Your task to perform on an android device: find snoozed emails in the gmail app Image 0: 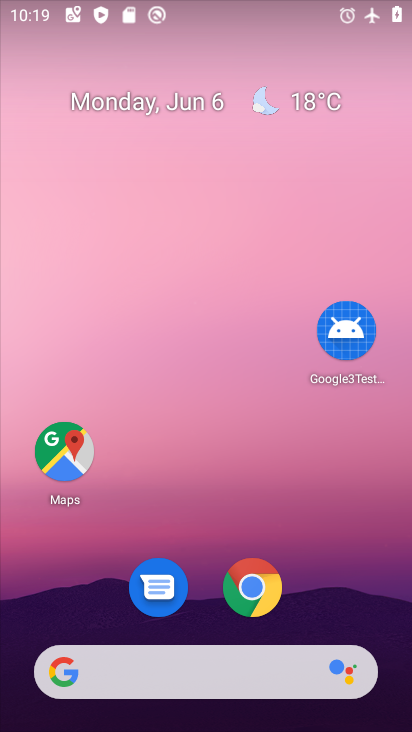
Step 0: drag from (346, 595) to (212, 125)
Your task to perform on an android device: find snoozed emails in the gmail app Image 1: 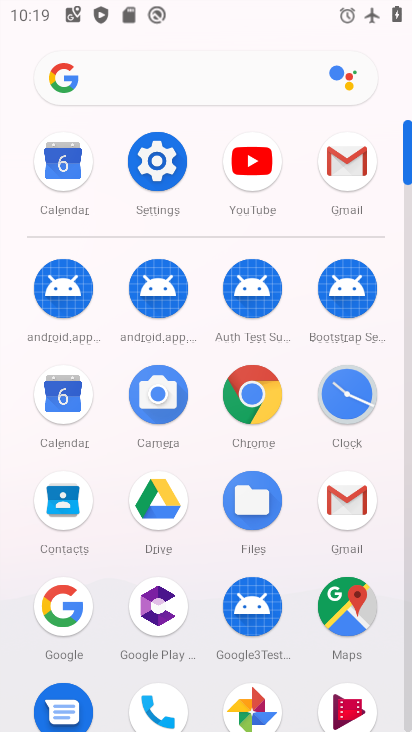
Step 1: click (342, 171)
Your task to perform on an android device: find snoozed emails in the gmail app Image 2: 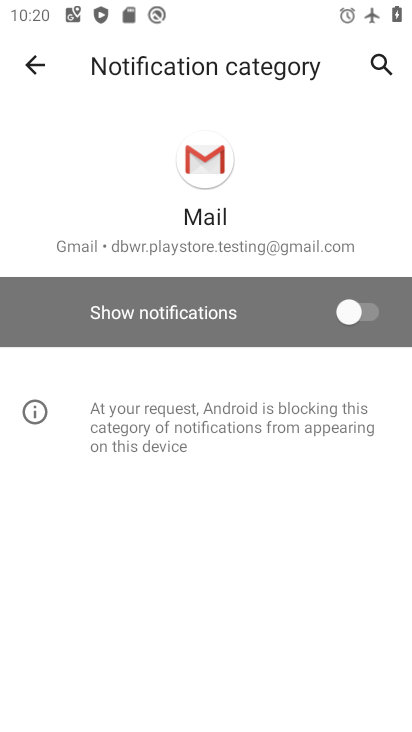
Step 2: click (39, 62)
Your task to perform on an android device: find snoozed emails in the gmail app Image 3: 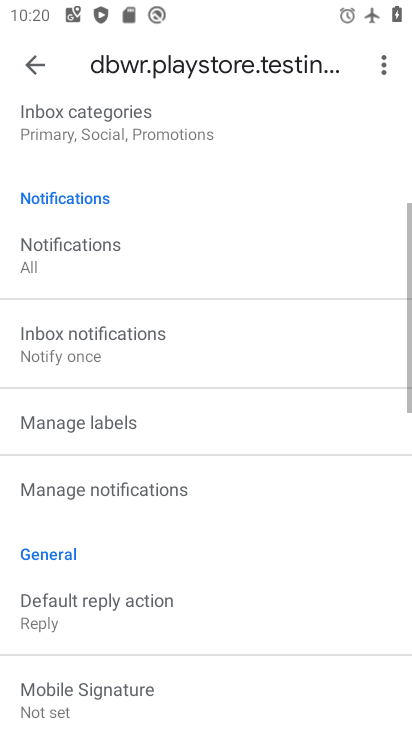
Step 3: click (40, 63)
Your task to perform on an android device: find snoozed emails in the gmail app Image 4: 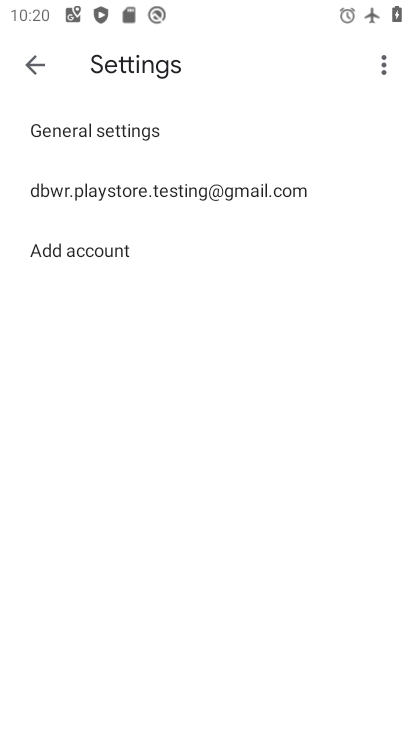
Step 4: click (41, 64)
Your task to perform on an android device: find snoozed emails in the gmail app Image 5: 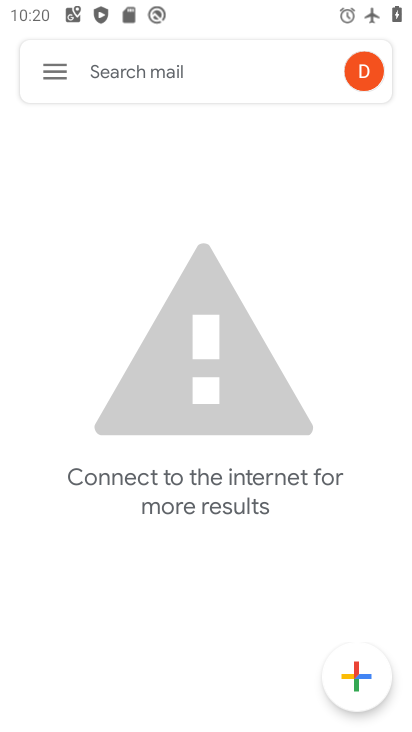
Step 5: click (44, 67)
Your task to perform on an android device: find snoozed emails in the gmail app Image 6: 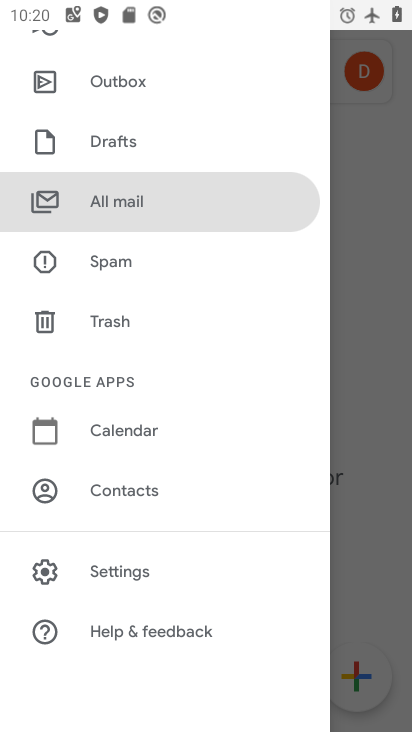
Step 6: drag from (115, 212) to (125, 600)
Your task to perform on an android device: find snoozed emails in the gmail app Image 7: 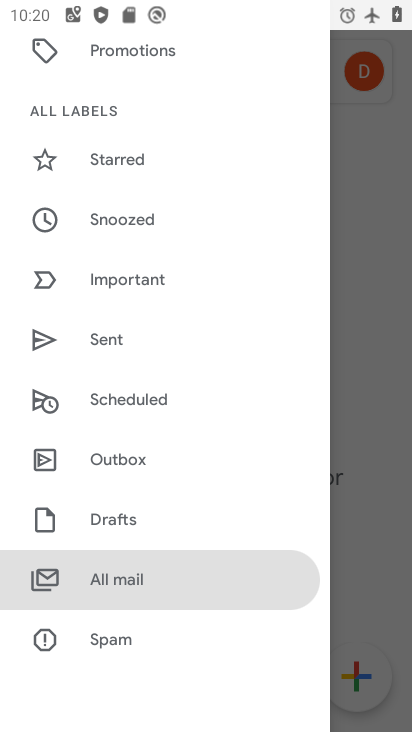
Step 7: click (119, 221)
Your task to perform on an android device: find snoozed emails in the gmail app Image 8: 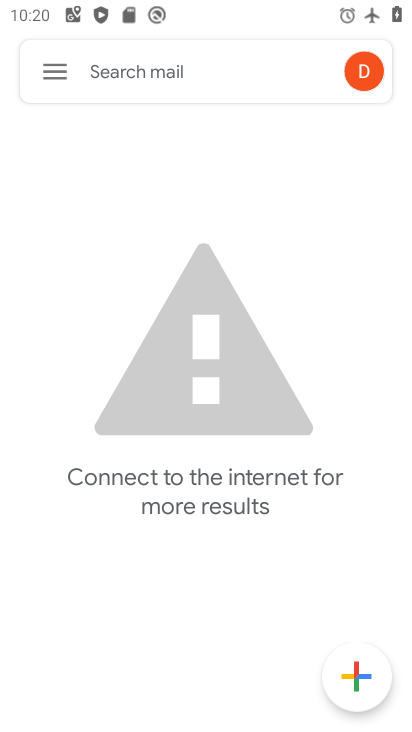
Step 8: task complete